Your task to perform on an android device: add a label to a message in the gmail app Image 0: 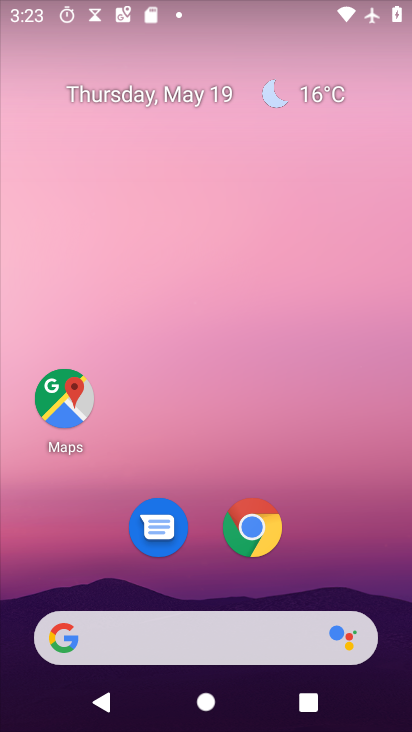
Step 0: drag from (307, 412) to (163, 29)
Your task to perform on an android device: add a label to a message in the gmail app Image 1: 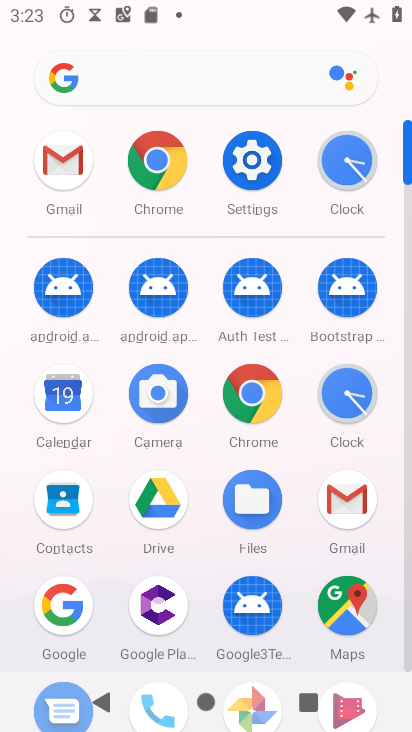
Step 1: click (342, 509)
Your task to perform on an android device: add a label to a message in the gmail app Image 2: 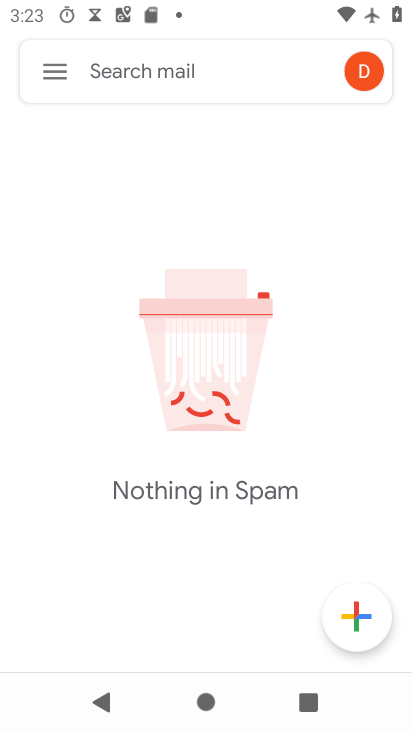
Step 2: press home button
Your task to perform on an android device: add a label to a message in the gmail app Image 3: 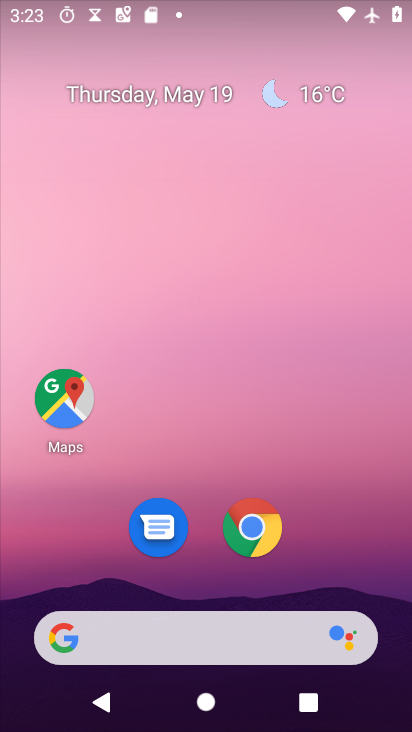
Step 3: drag from (317, 499) to (142, 23)
Your task to perform on an android device: add a label to a message in the gmail app Image 4: 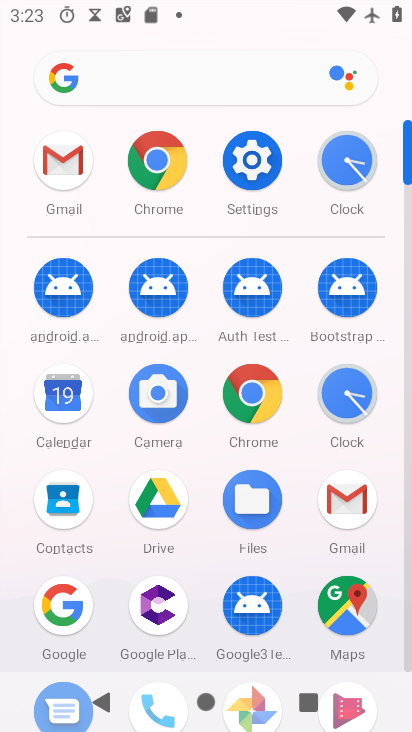
Step 4: click (370, 488)
Your task to perform on an android device: add a label to a message in the gmail app Image 5: 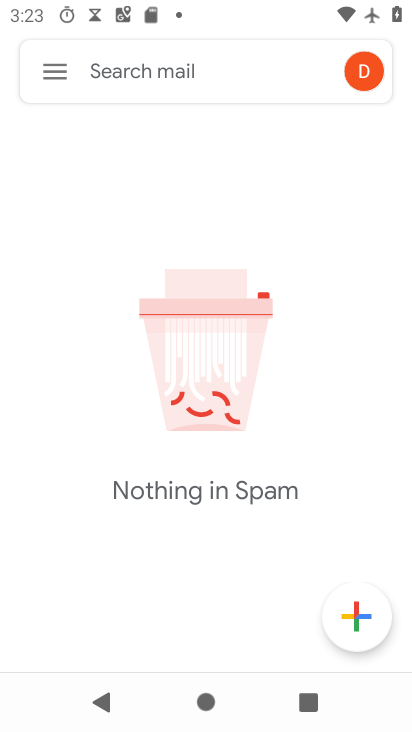
Step 5: click (54, 62)
Your task to perform on an android device: add a label to a message in the gmail app Image 6: 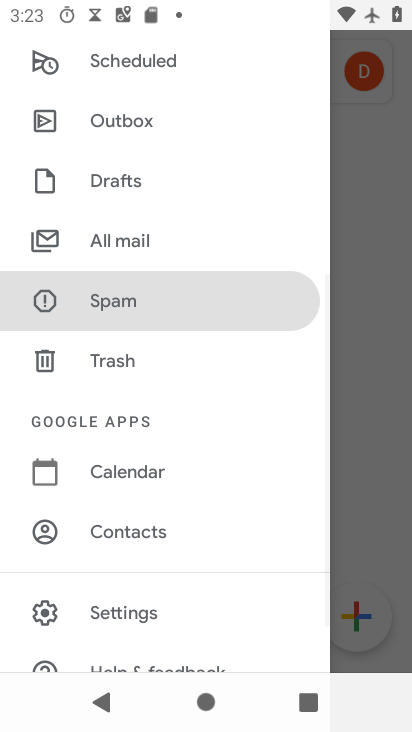
Step 6: click (151, 256)
Your task to perform on an android device: add a label to a message in the gmail app Image 7: 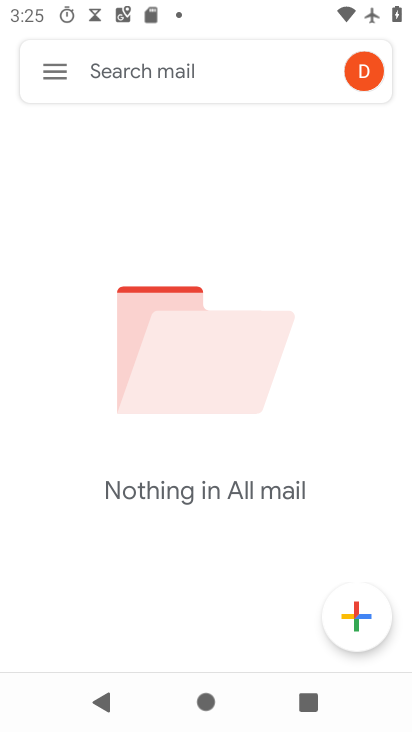
Step 7: task complete